Your task to perform on an android device: Open the web browser Image 0: 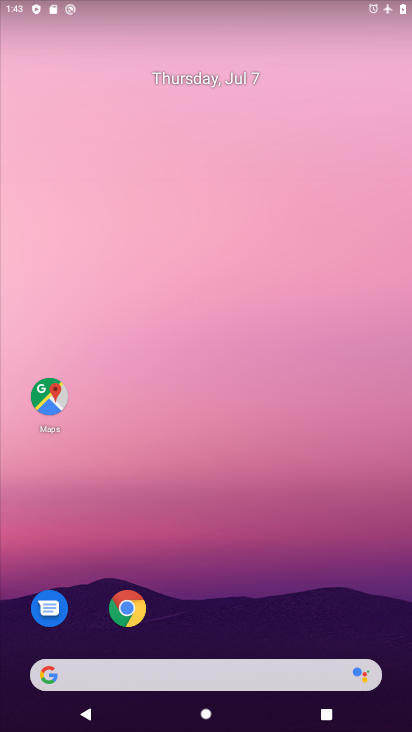
Step 0: click (123, 619)
Your task to perform on an android device: Open the web browser Image 1: 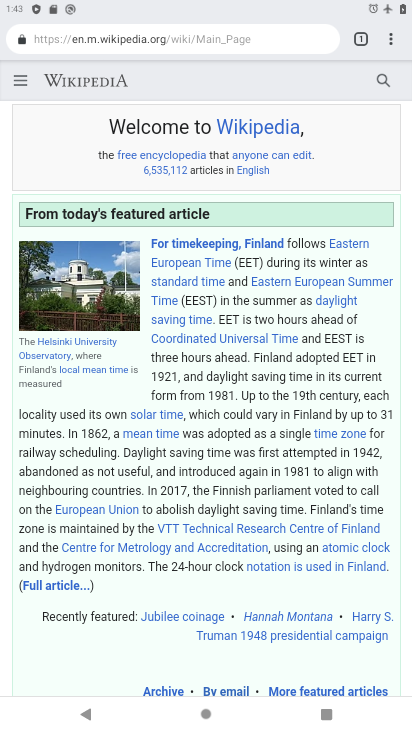
Step 1: task complete